Your task to perform on an android device: toggle data saver in the chrome app Image 0: 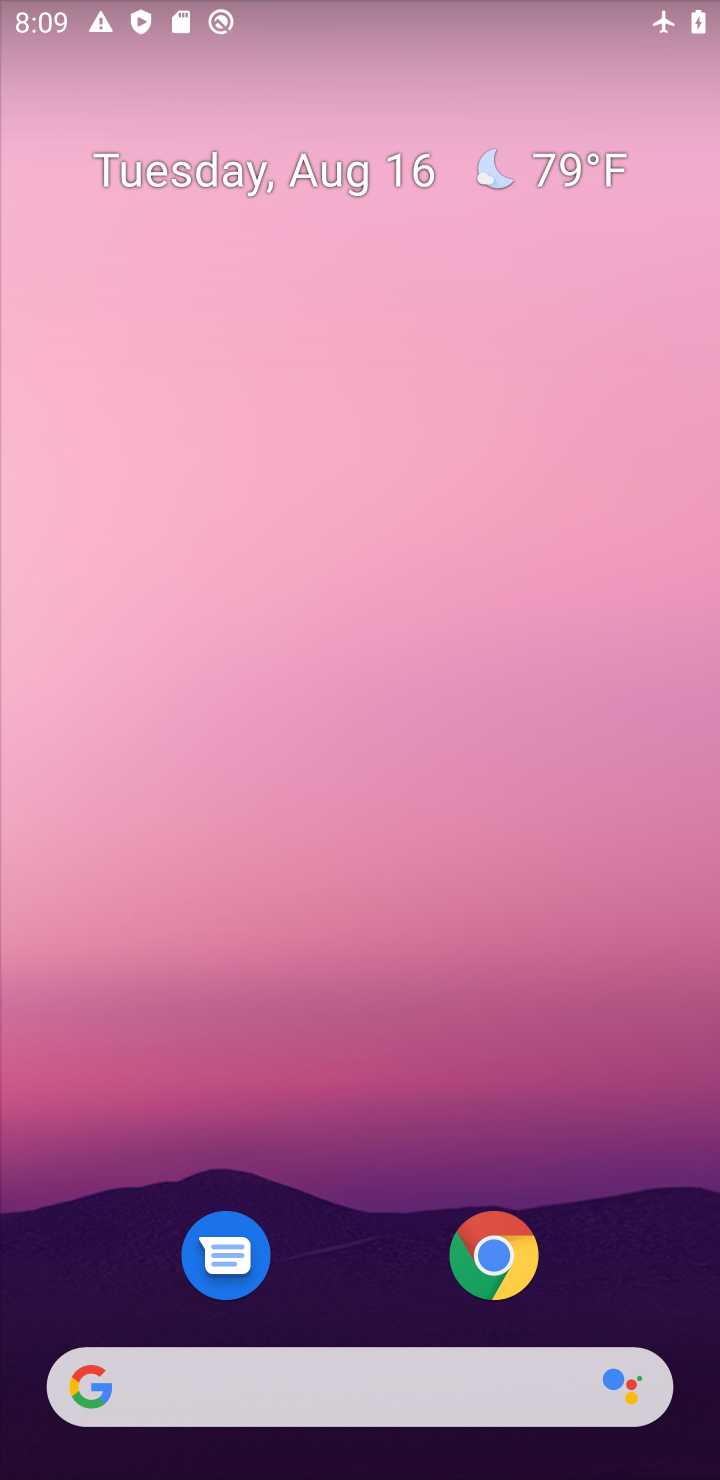
Step 0: click (493, 1266)
Your task to perform on an android device: toggle data saver in the chrome app Image 1: 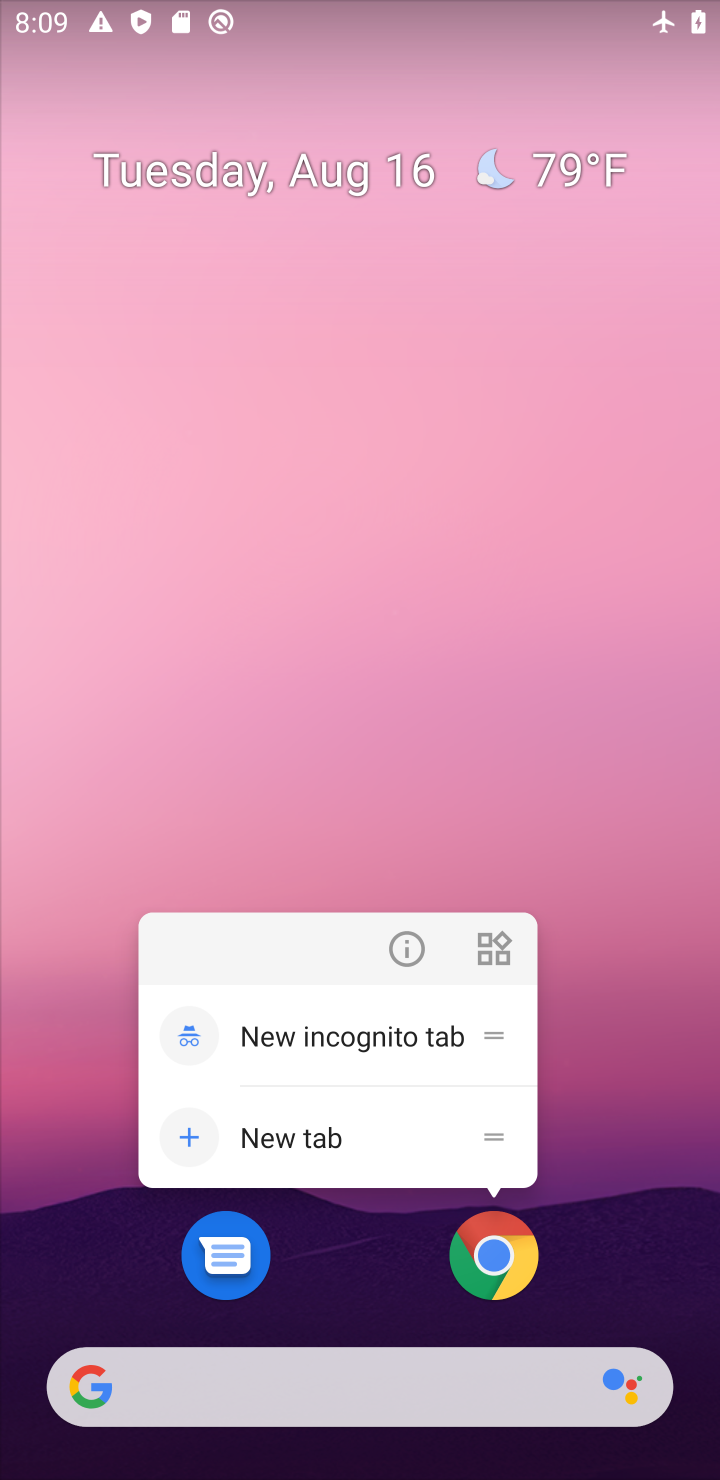
Step 1: click (493, 1266)
Your task to perform on an android device: toggle data saver in the chrome app Image 2: 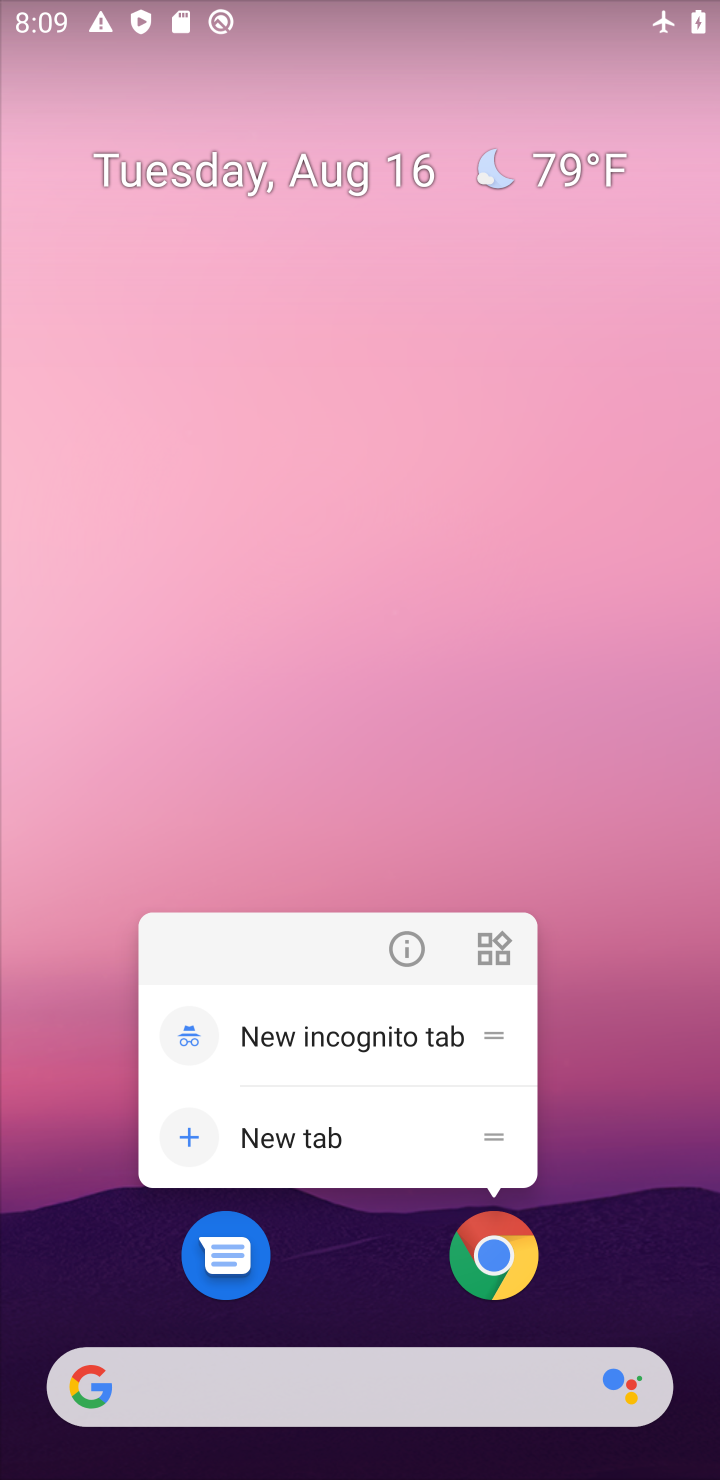
Step 2: click (485, 1264)
Your task to perform on an android device: toggle data saver in the chrome app Image 3: 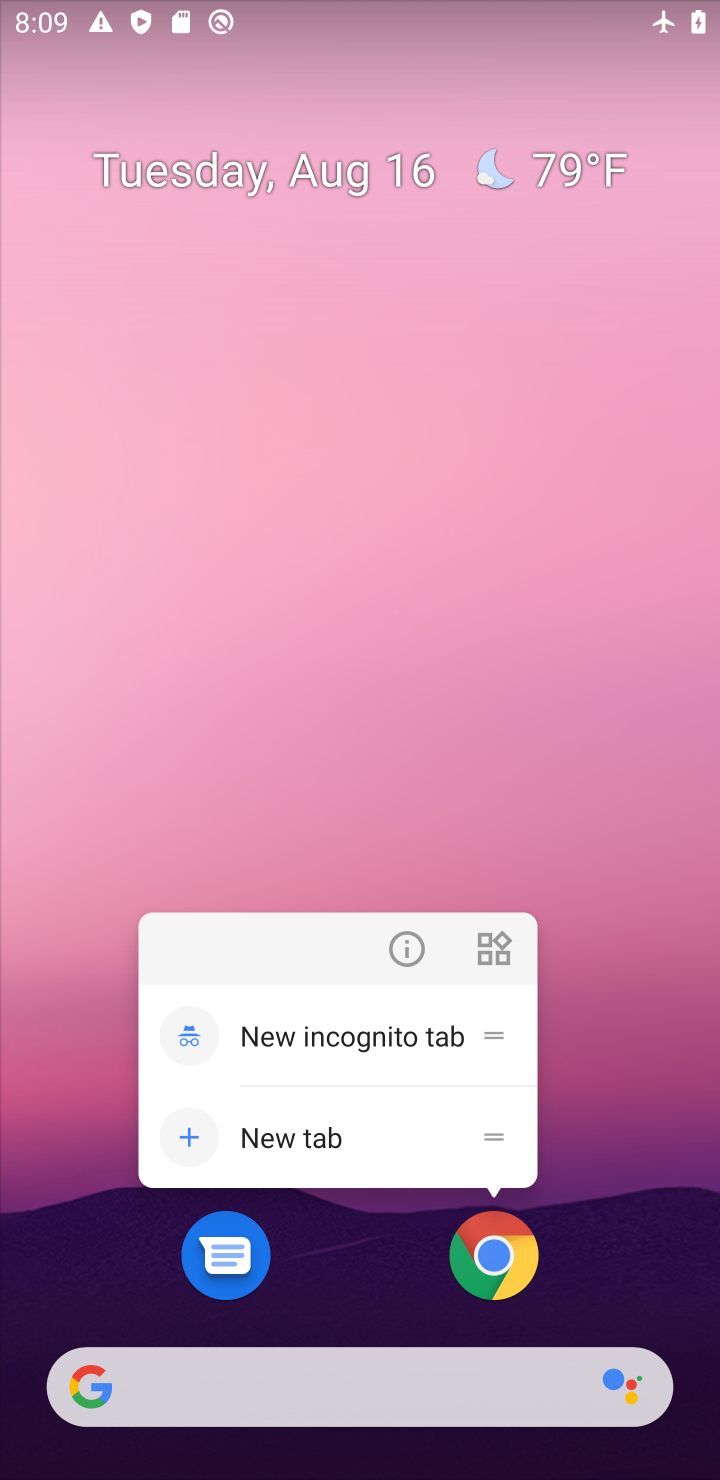
Step 3: click (485, 1264)
Your task to perform on an android device: toggle data saver in the chrome app Image 4: 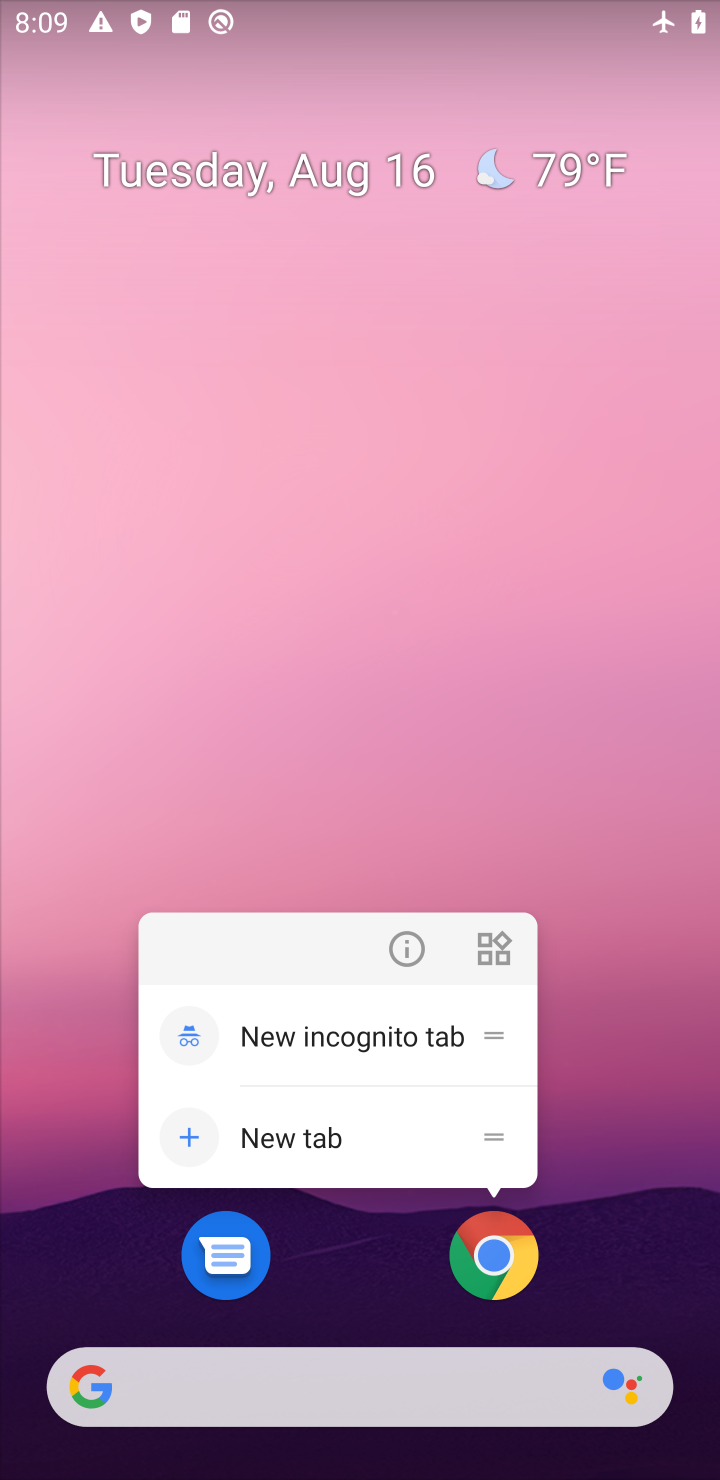
Step 4: click (485, 1264)
Your task to perform on an android device: toggle data saver in the chrome app Image 5: 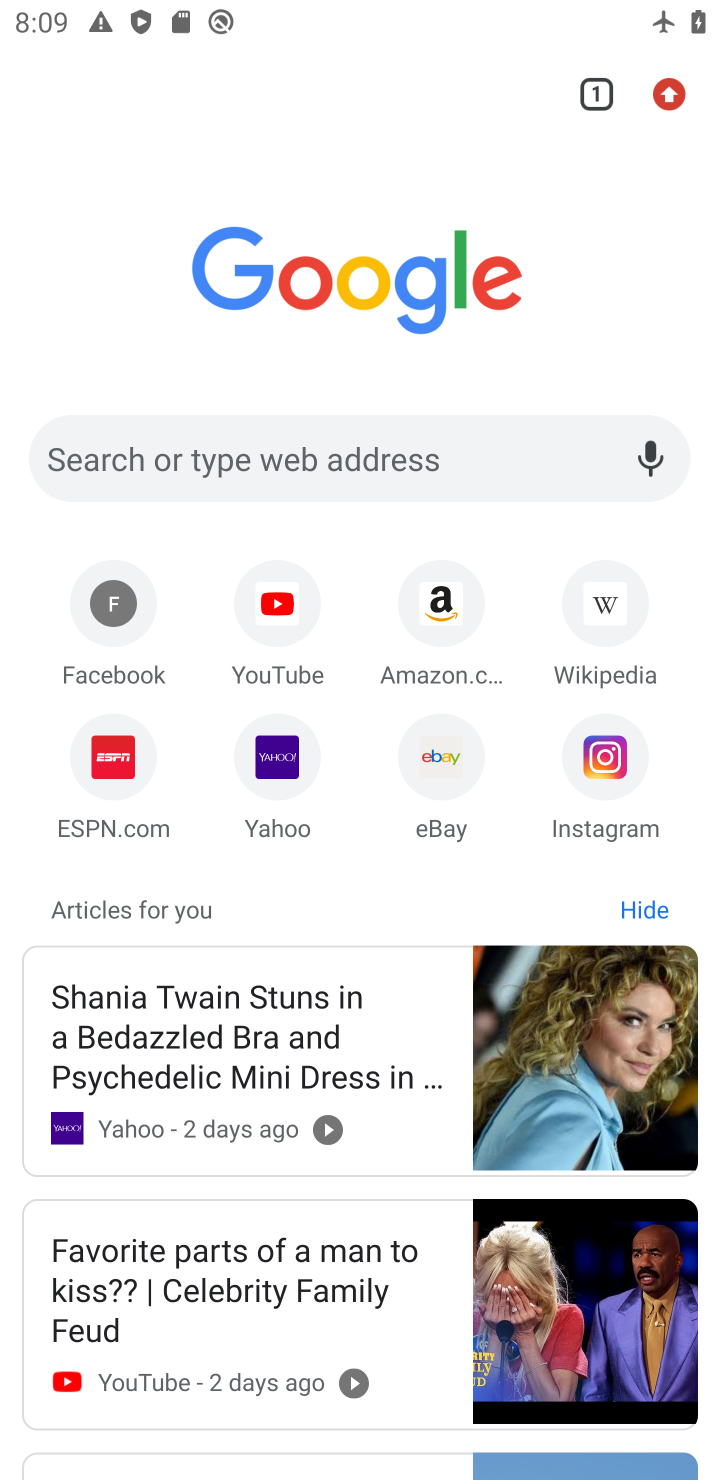
Step 5: drag from (661, 94) to (383, 920)
Your task to perform on an android device: toggle data saver in the chrome app Image 6: 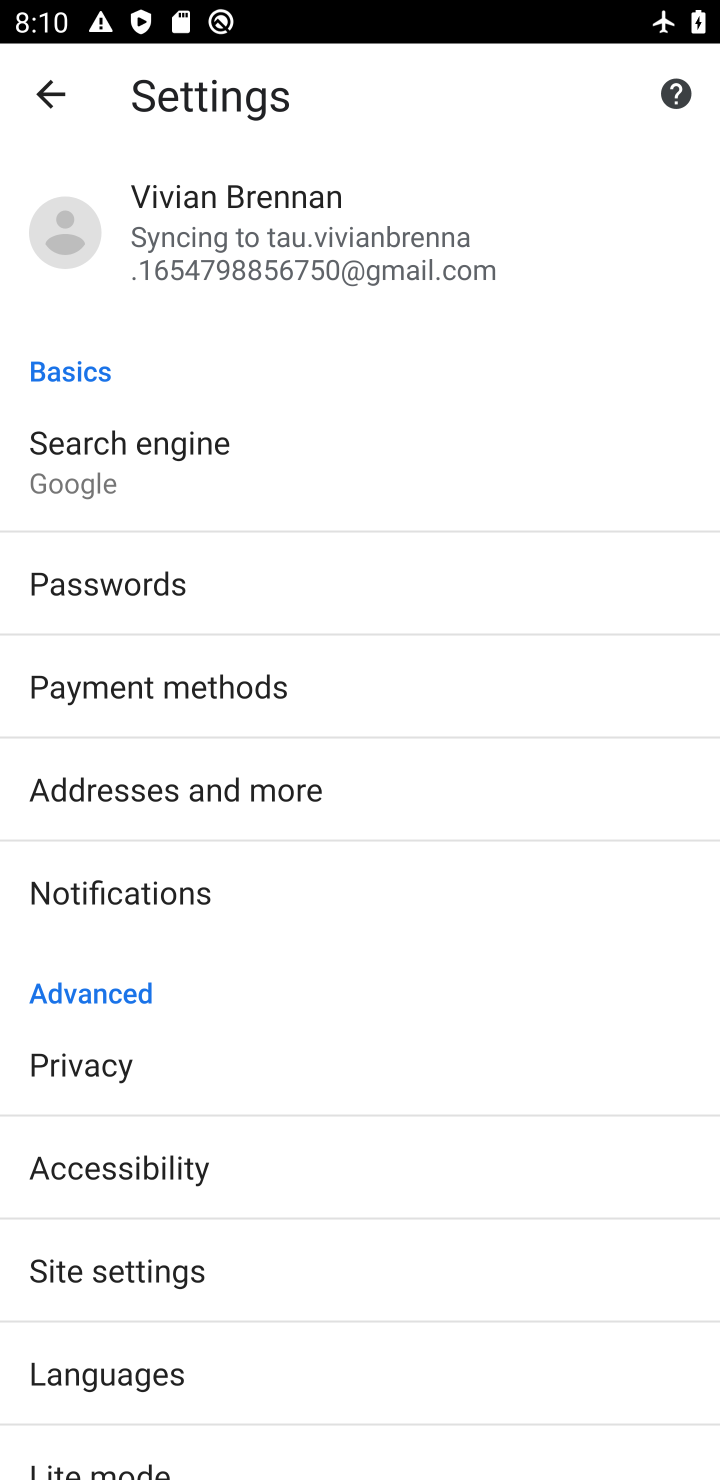
Step 6: drag from (210, 1365) to (268, 238)
Your task to perform on an android device: toggle data saver in the chrome app Image 7: 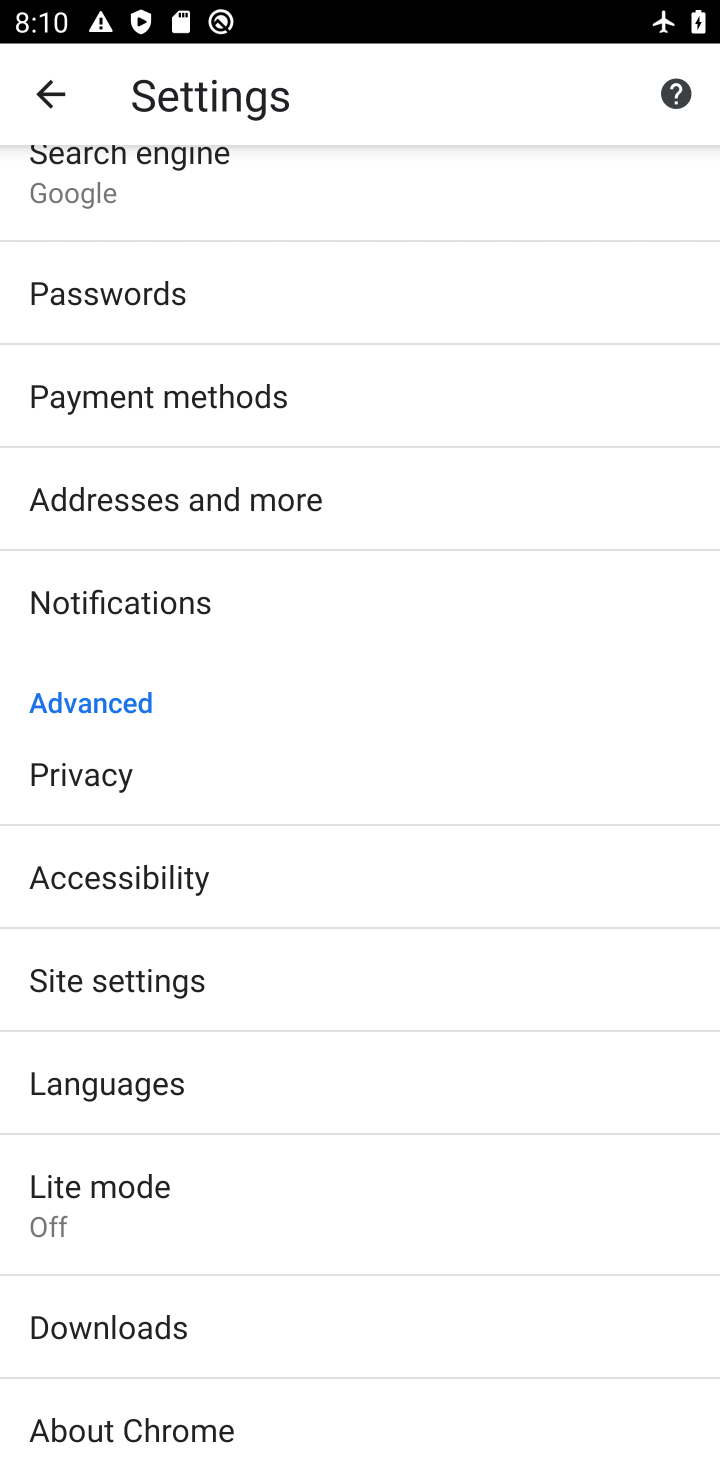
Step 7: click (198, 1199)
Your task to perform on an android device: toggle data saver in the chrome app Image 8: 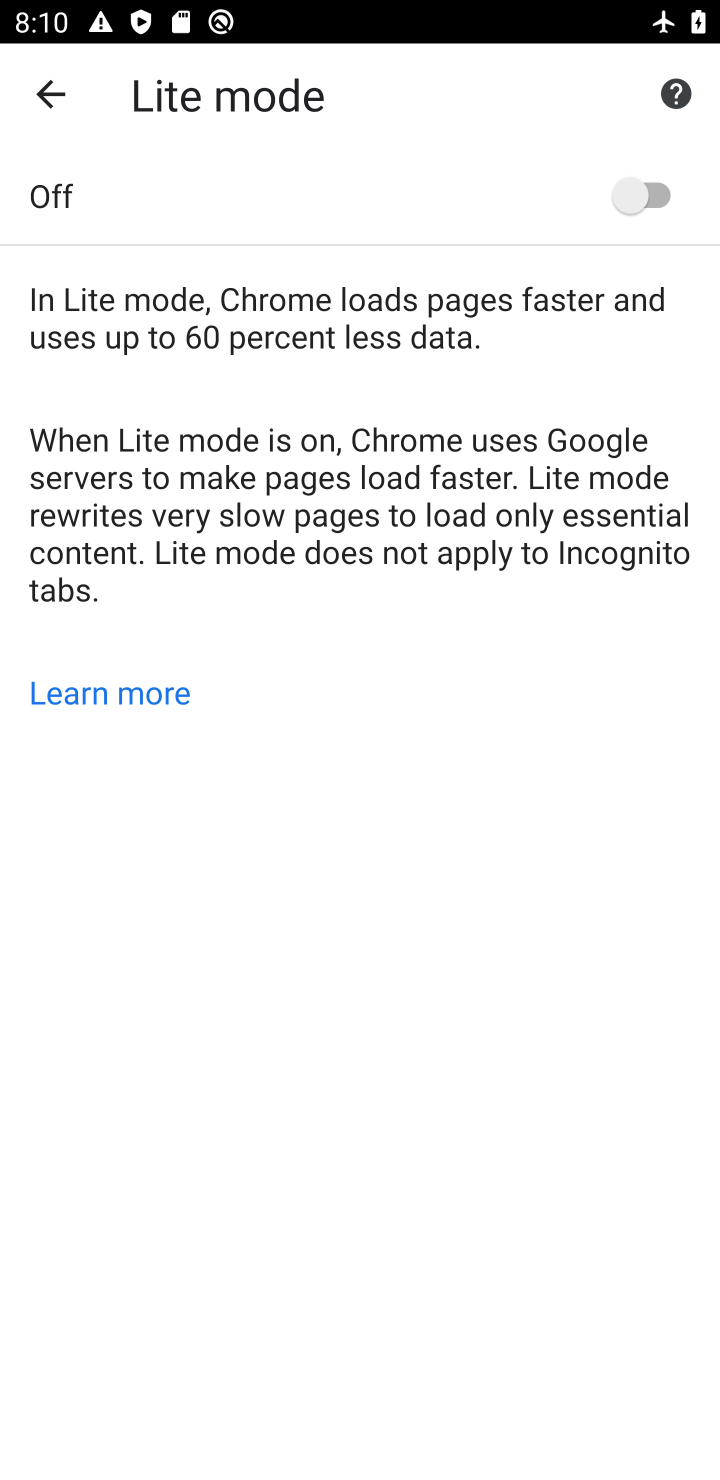
Step 8: click (648, 193)
Your task to perform on an android device: toggle data saver in the chrome app Image 9: 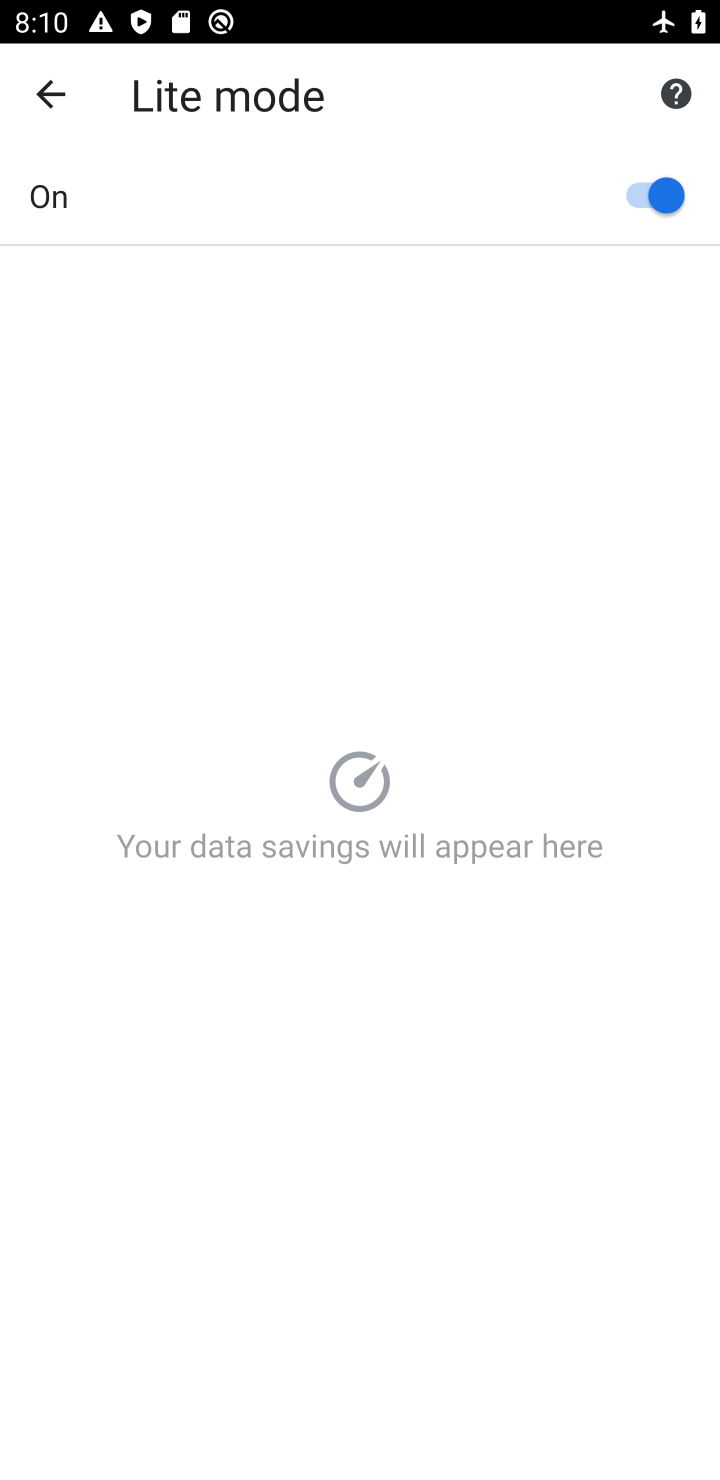
Step 9: task complete